Your task to perform on an android device: Search for "energizer triple a" on ebay, select the first entry, add it to the cart, then select checkout. Image 0: 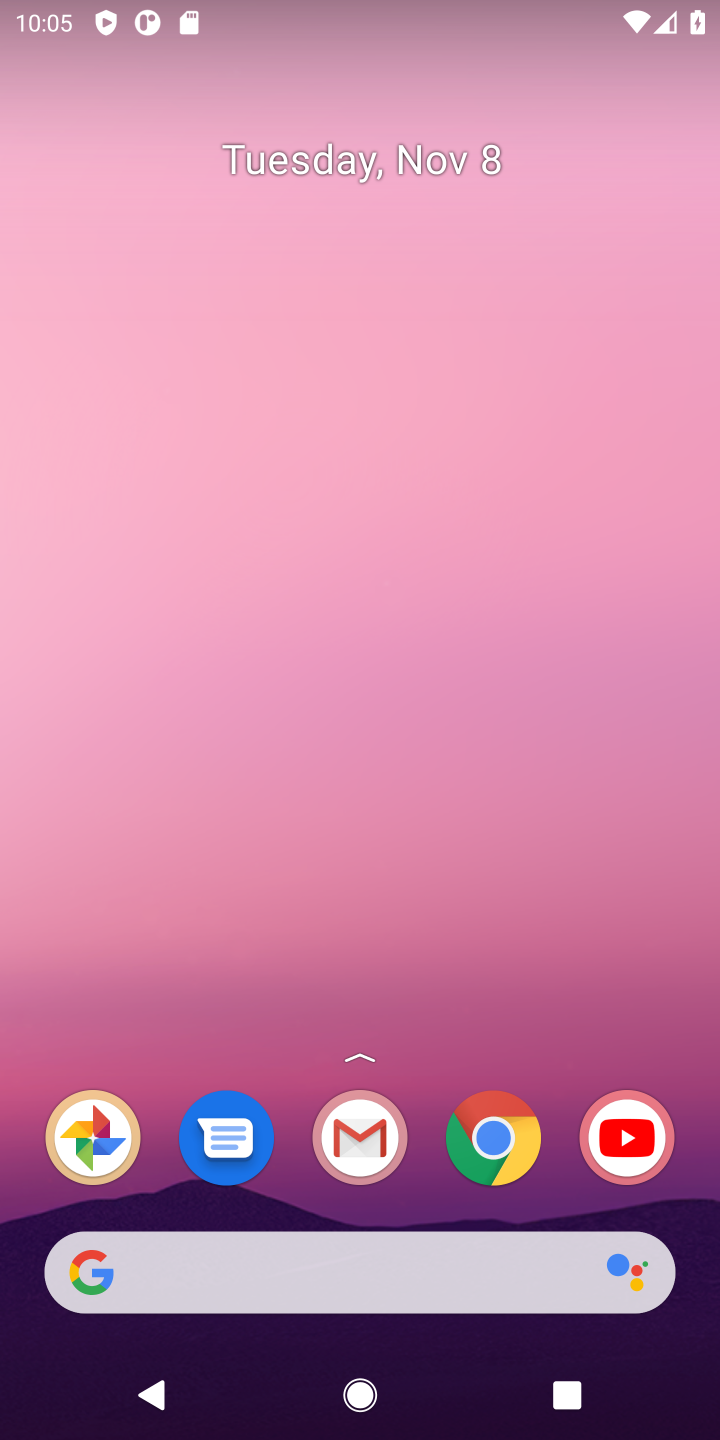
Step 0: click (502, 1134)
Your task to perform on an android device: Search for "energizer triple a" on ebay, select the first entry, add it to the cart, then select checkout. Image 1: 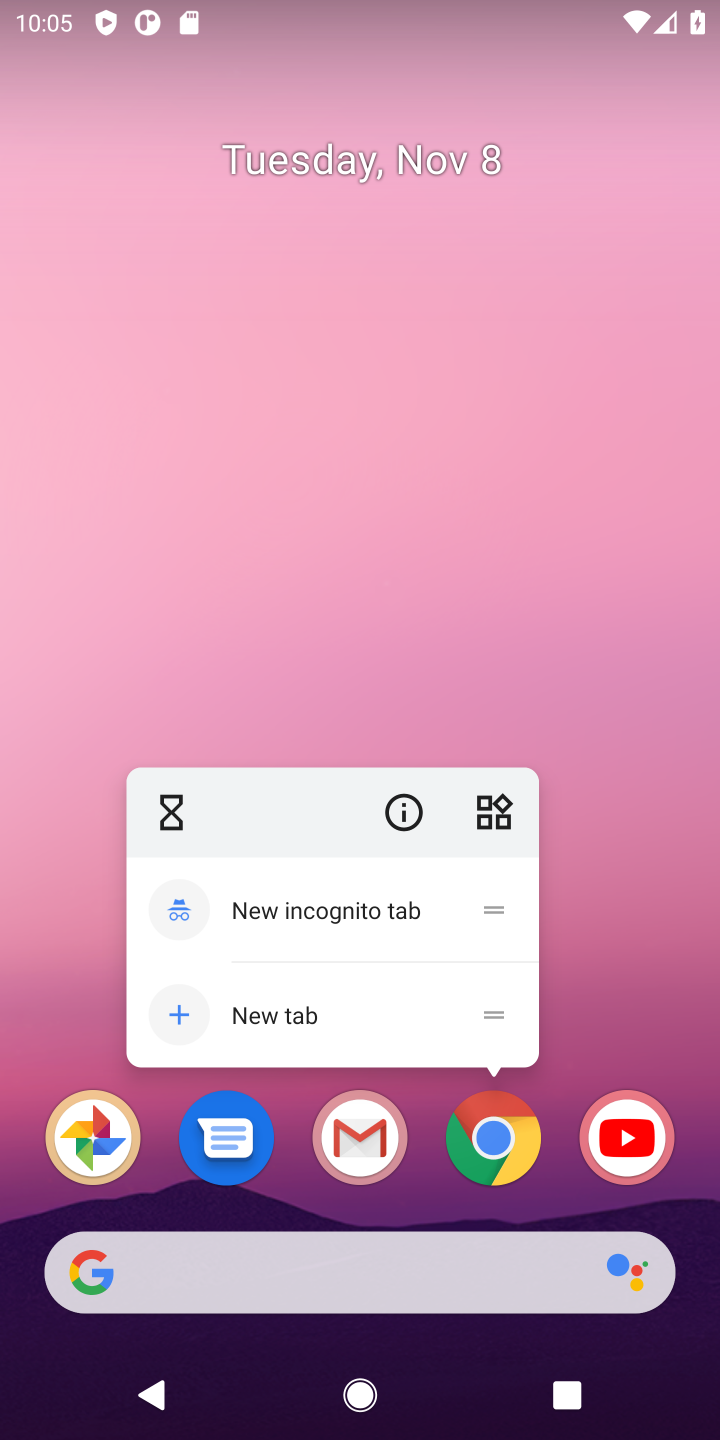
Step 1: click (501, 1119)
Your task to perform on an android device: Search for "energizer triple a" on ebay, select the first entry, add it to the cart, then select checkout. Image 2: 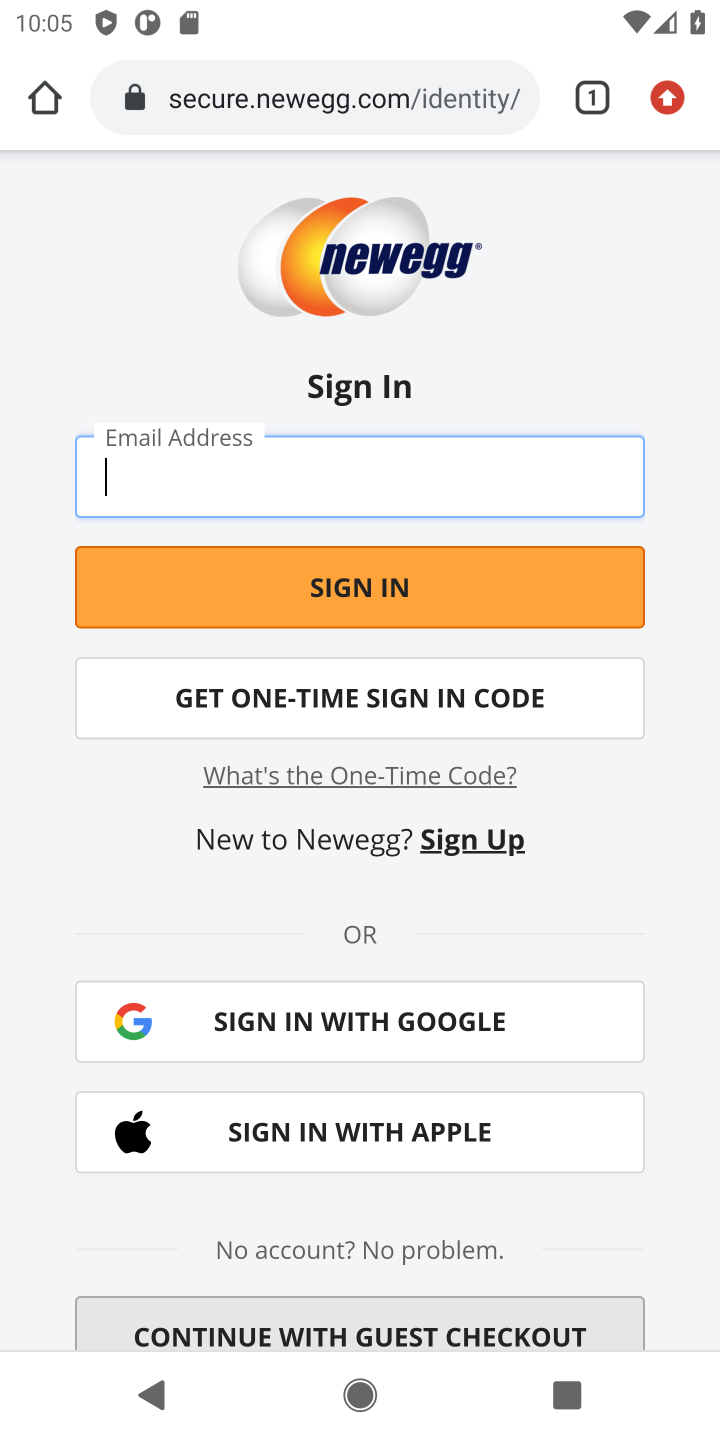
Step 2: click (421, 87)
Your task to perform on an android device: Search for "energizer triple a" on ebay, select the first entry, add it to the cart, then select checkout. Image 3: 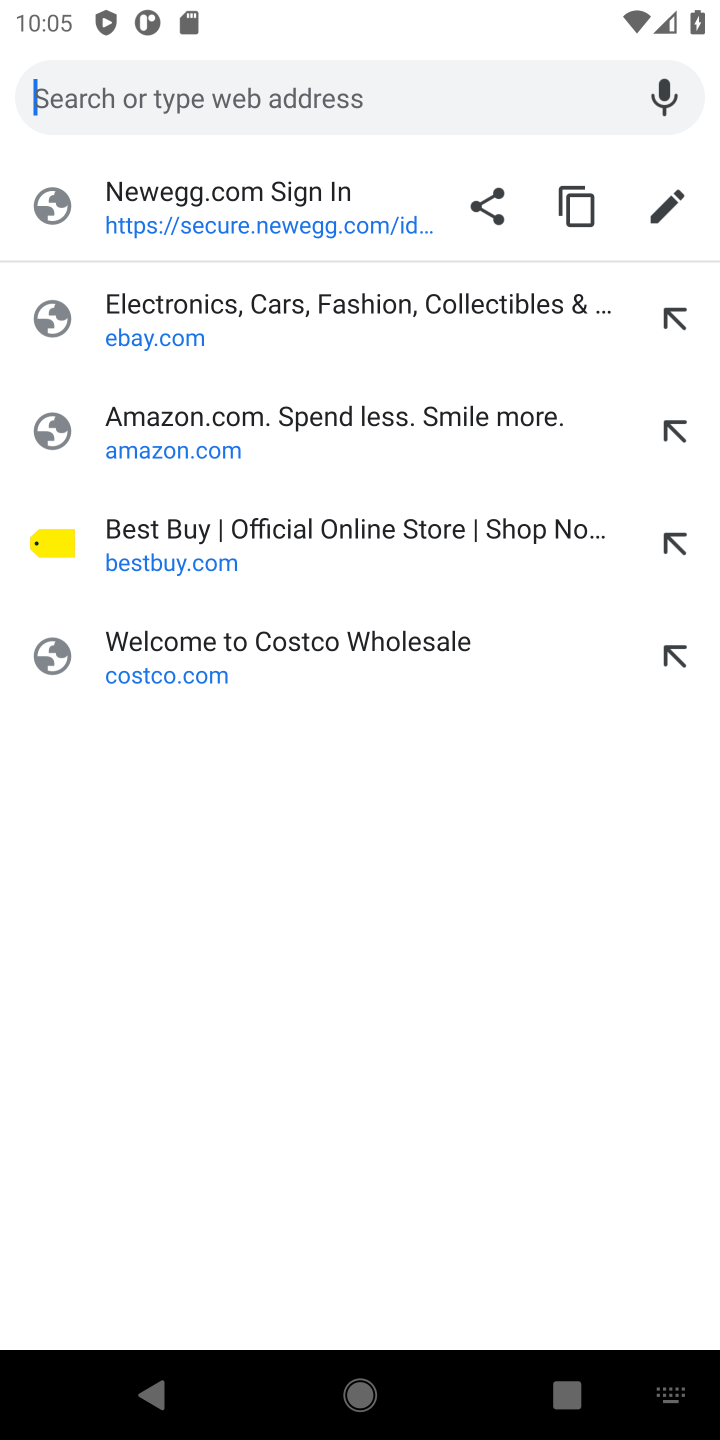
Step 3: click (165, 330)
Your task to perform on an android device: Search for "energizer triple a" on ebay, select the first entry, add it to the cart, then select checkout. Image 4: 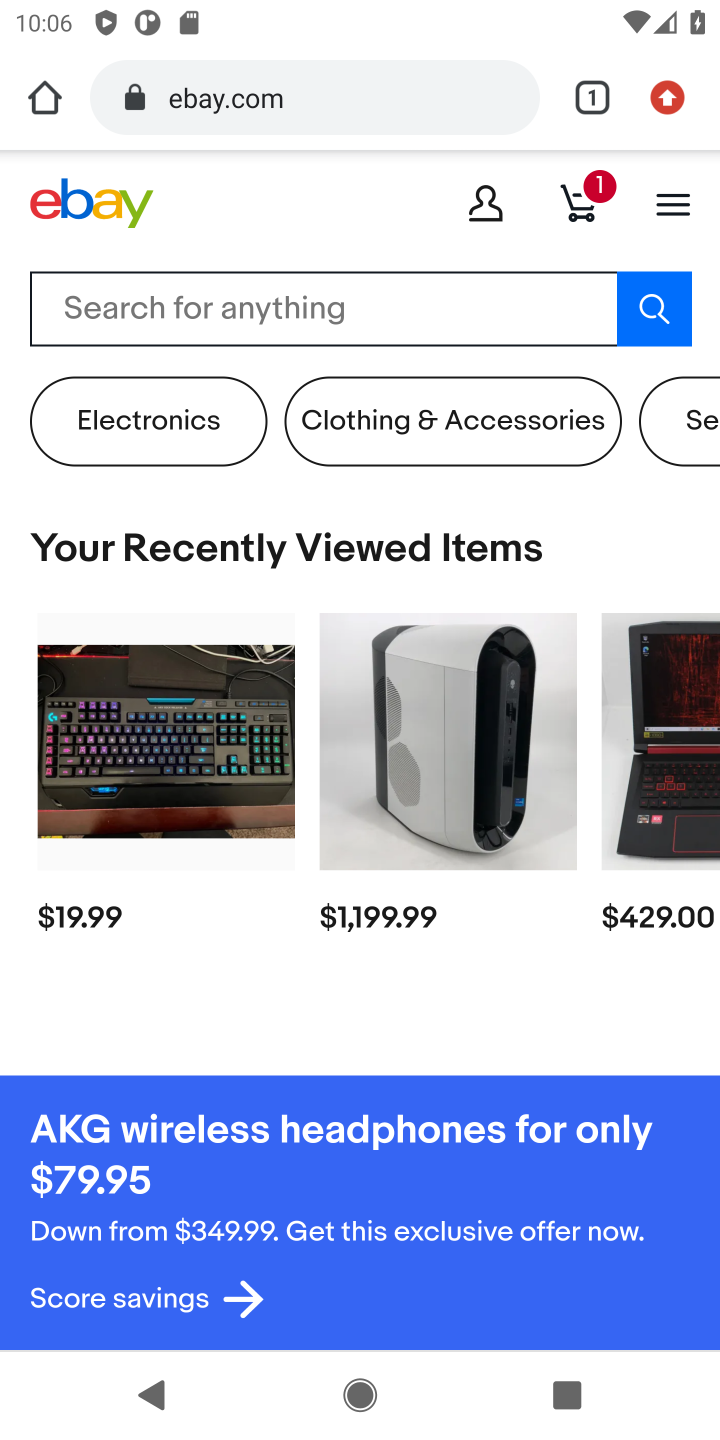
Step 4: click (165, 310)
Your task to perform on an android device: Search for "energizer triple a" on ebay, select the first entry, add it to the cart, then select checkout. Image 5: 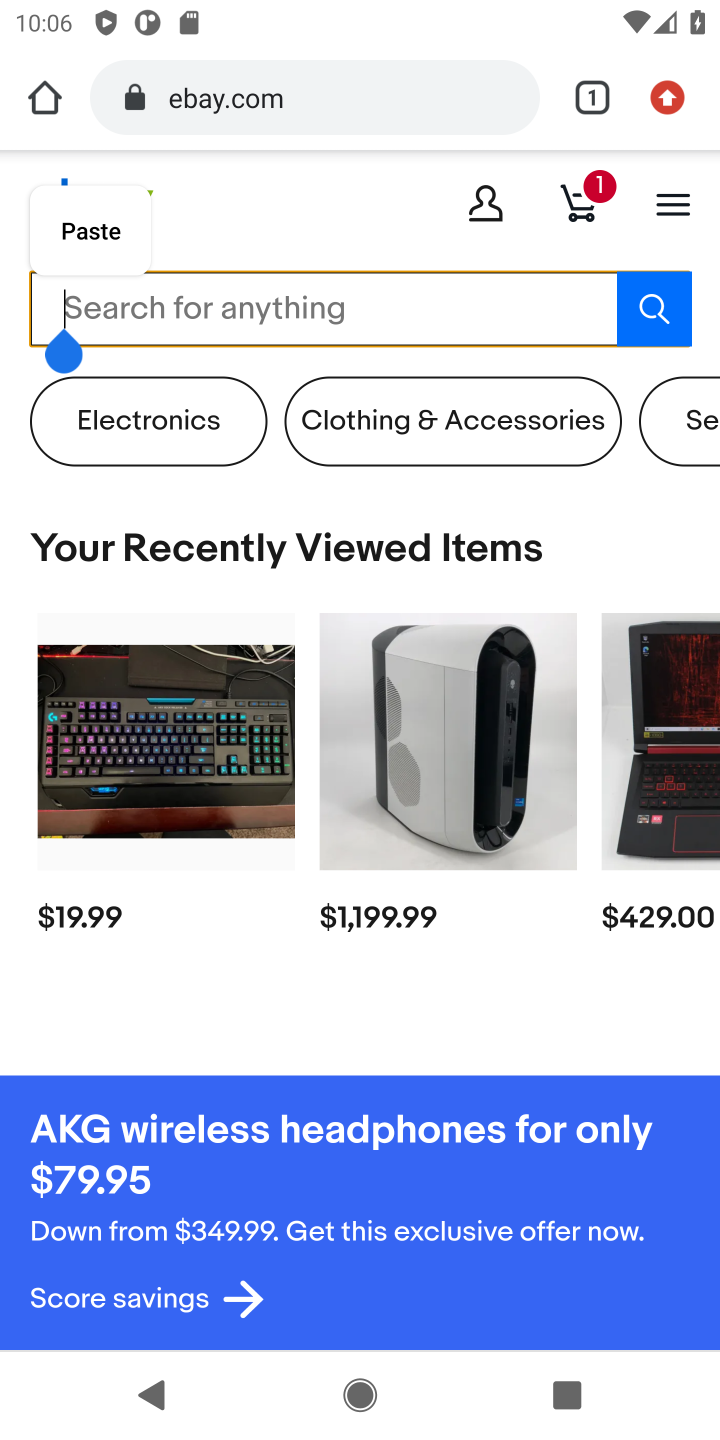
Step 5: type "energizer triple a"
Your task to perform on an android device: Search for "energizer triple a" on ebay, select the first entry, add it to the cart, then select checkout. Image 6: 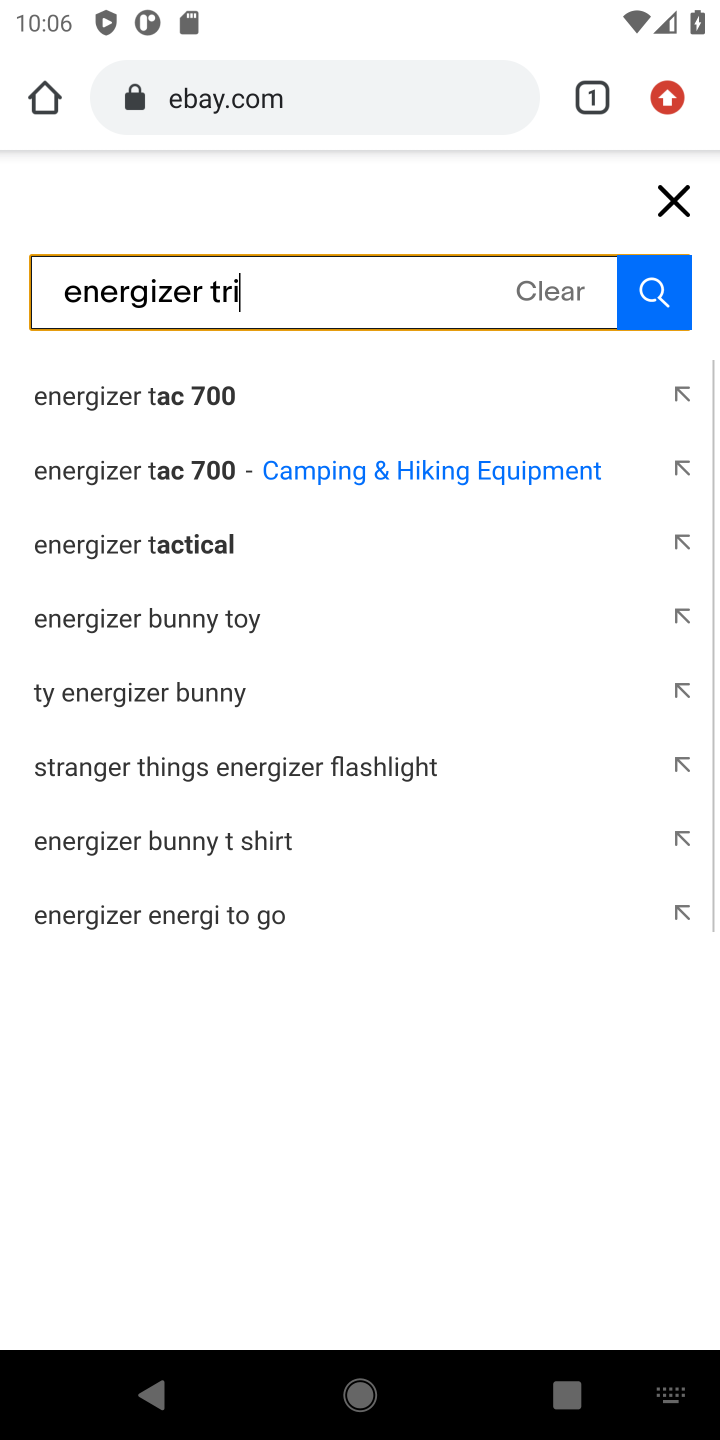
Step 6: press enter
Your task to perform on an android device: Search for "energizer triple a" on ebay, select the first entry, add it to the cart, then select checkout. Image 7: 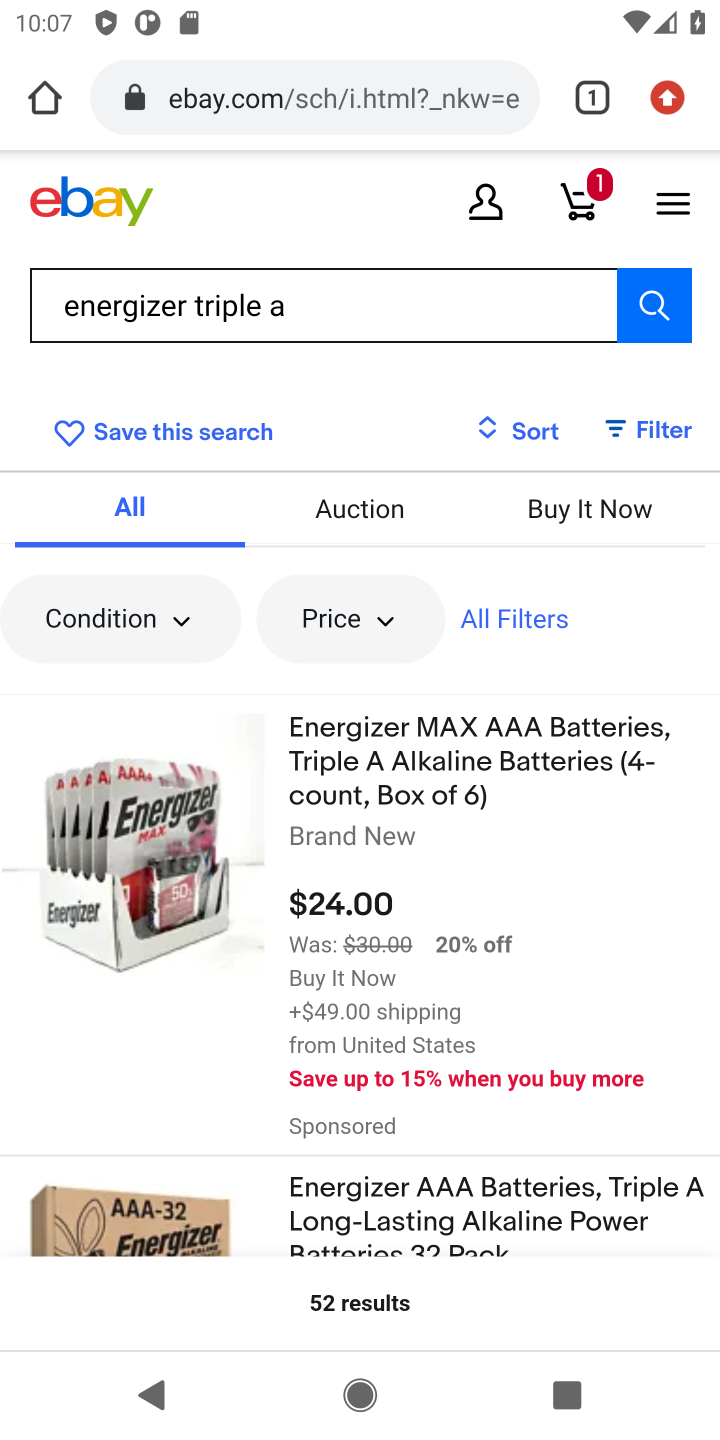
Step 7: click (452, 763)
Your task to perform on an android device: Search for "energizer triple a" on ebay, select the first entry, add it to the cart, then select checkout. Image 8: 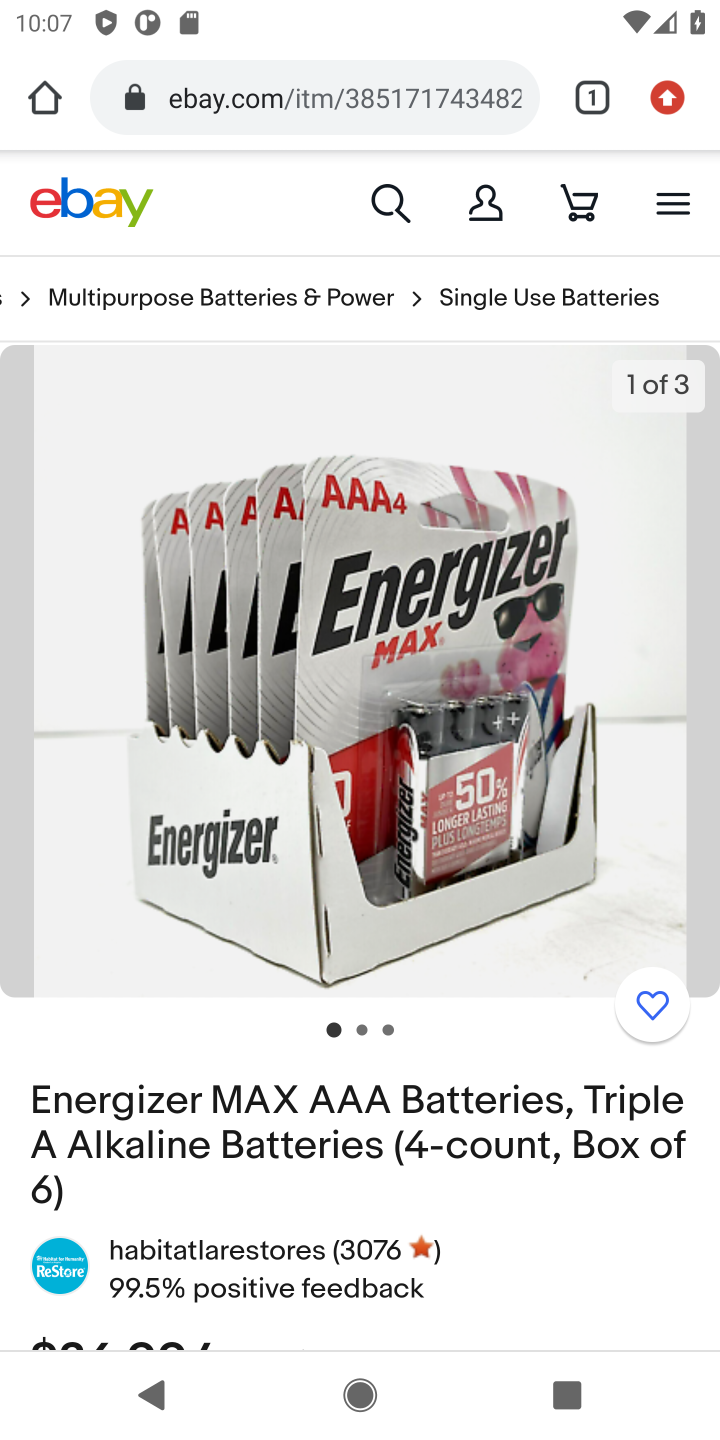
Step 8: drag from (378, 1270) to (622, 60)
Your task to perform on an android device: Search for "energizer triple a" on ebay, select the first entry, add it to the cart, then select checkout. Image 9: 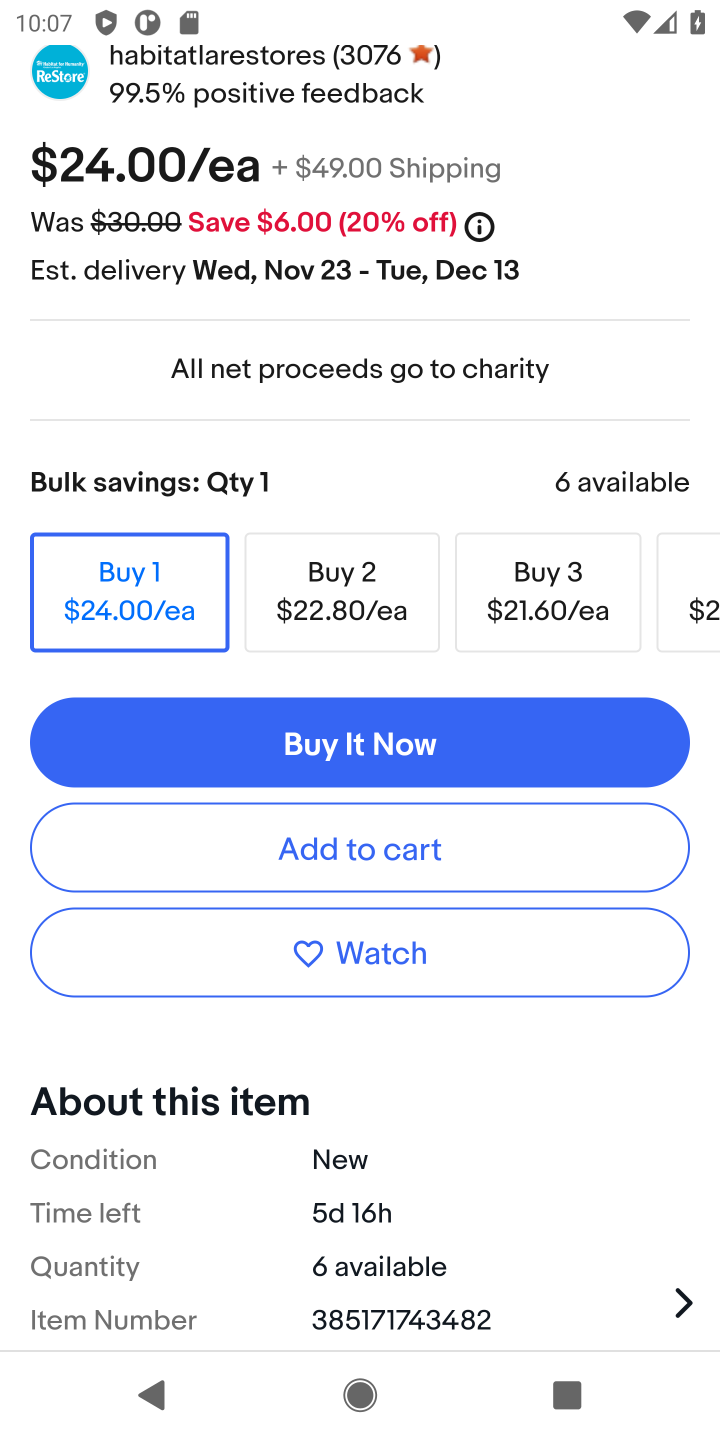
Step 9: click (411, 850)
Your task to perform on an android device: Search for "energizer triple a" on ebay, select the first entry, add it to the cart, then select checkout. Image 10: 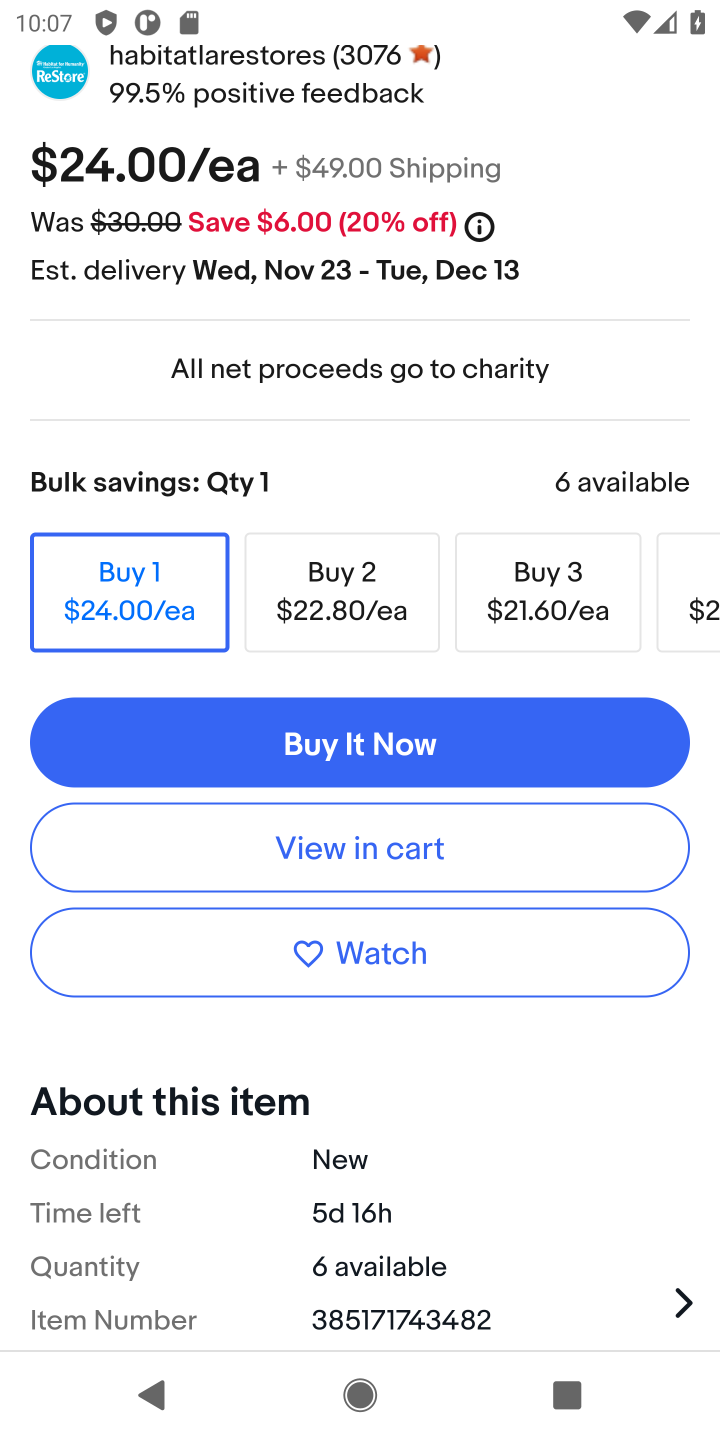
Step 10: click (390, 842)
Your task to perform on an android device: Search for "energizer triple a" on ebay, select the first entry, add it to the cart, then select checkout. Image 11: 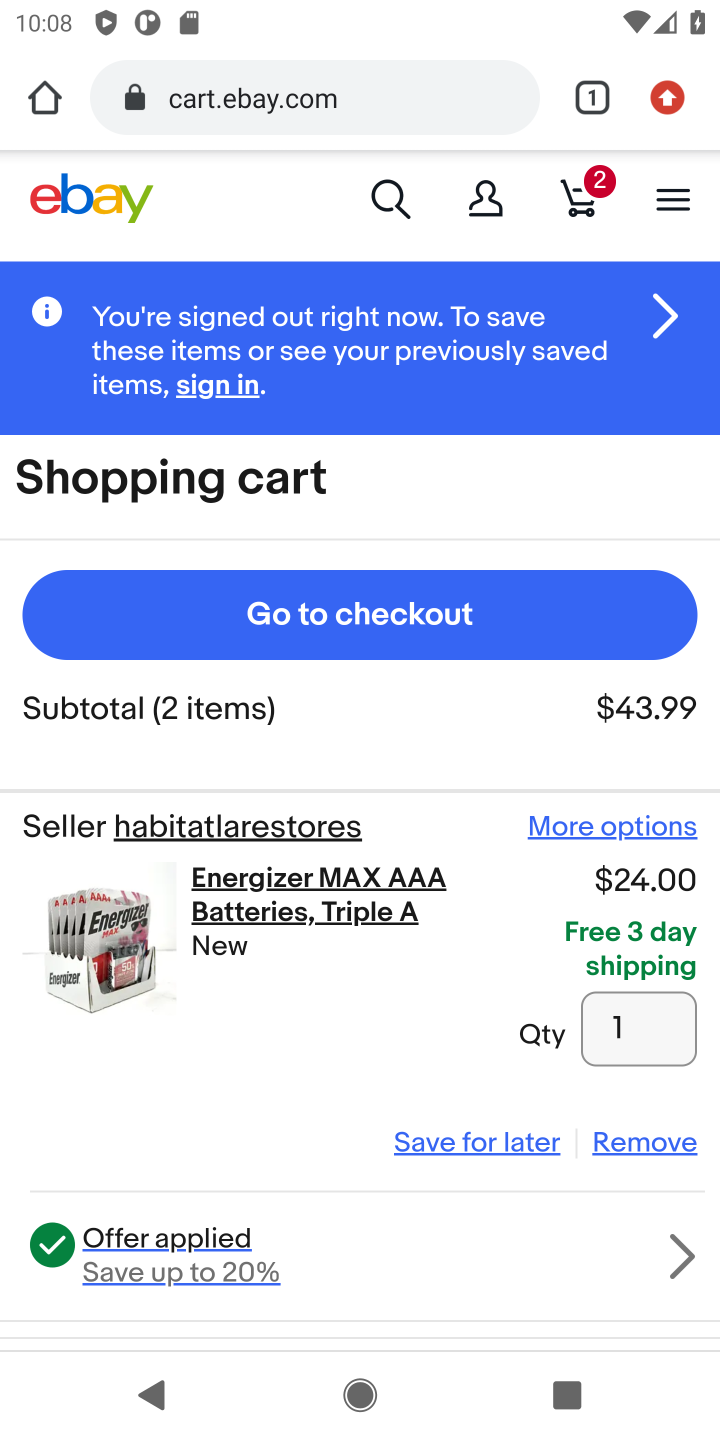
Step 11: drag from (285, 1147) to (661, 321)
Your task to perform on an android device: Search for "energizer triple a" on ebay, select the first entry, add it to the cart, then select checkout. Image 12: 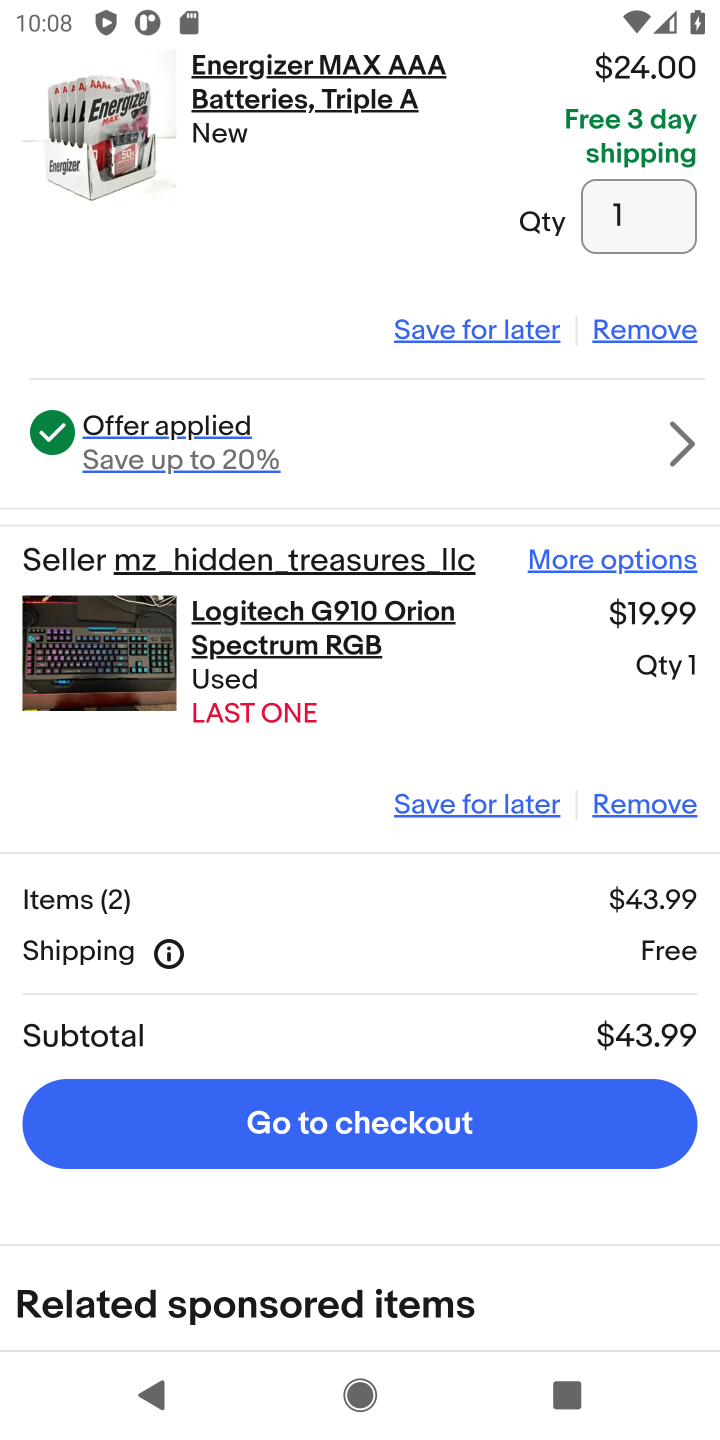
Step 12: click (663, 809)
Your task to perform on an android device: Search for "energizer triple a" on ebay, select the first entry, add it to the cart, then select checkout. Image 13: 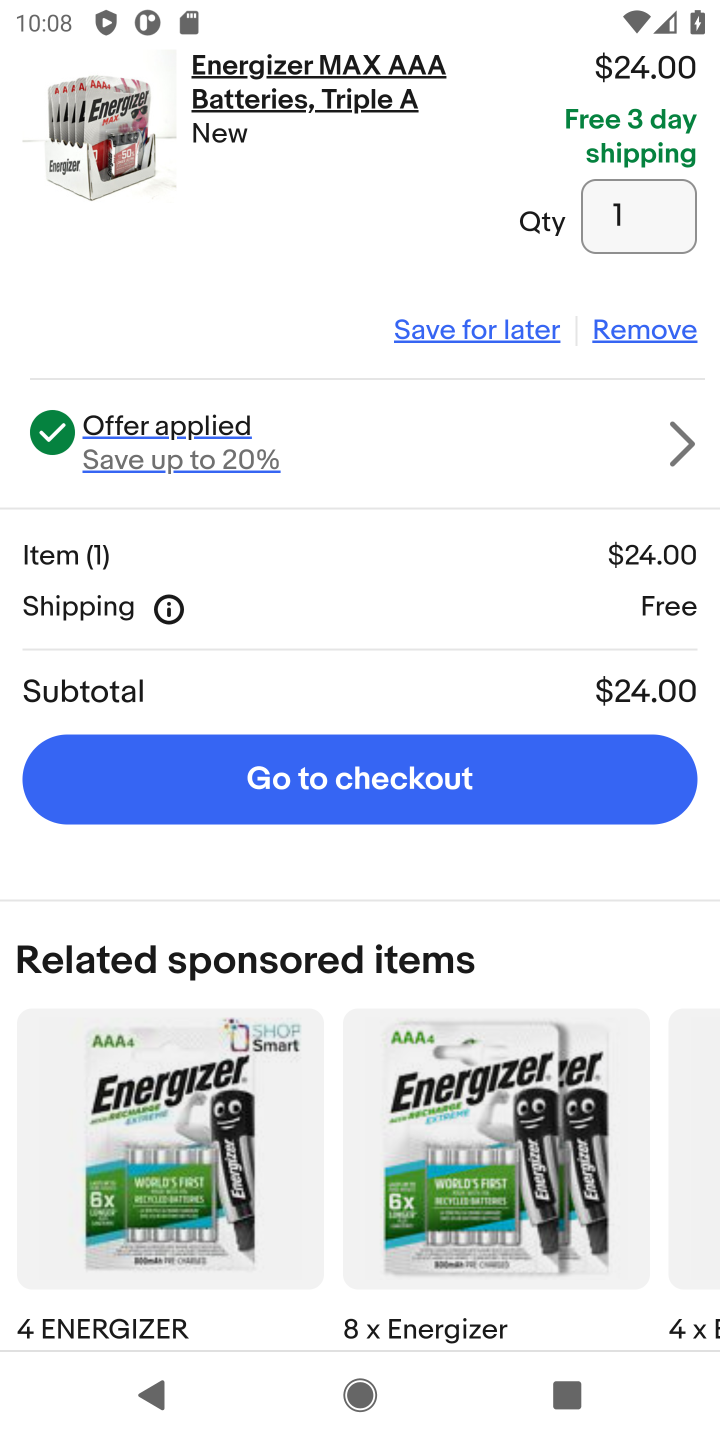
Step 13: click (333, 764)
Your task to perform on an android device: Search for "energizer triple a" on ebay, select the first entry, add it to the cart, then select checkout. Image 14: 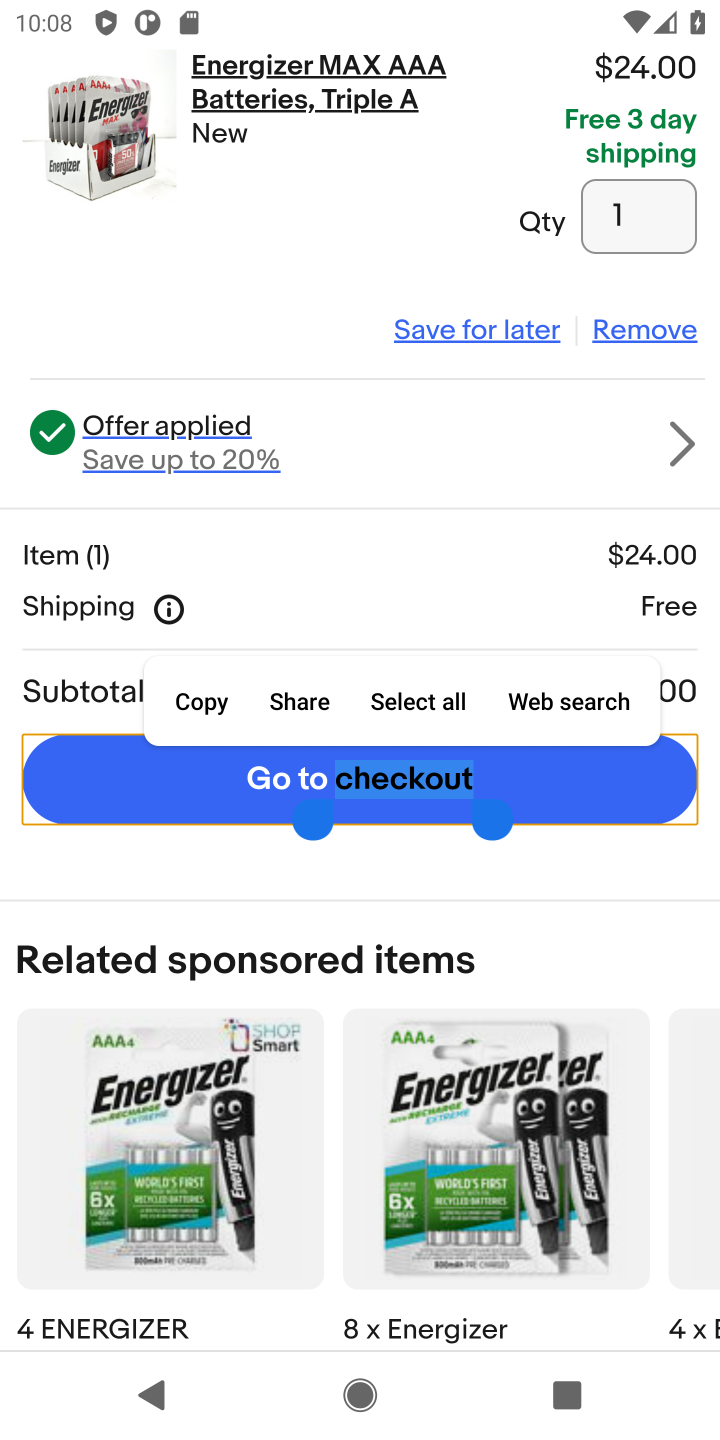
Step 14: click (323, 778)
Your task to perform on an android device: Search for "energizer triple a" on ebay, select the first entry, add it to the cart, then select checkout. Image 15: 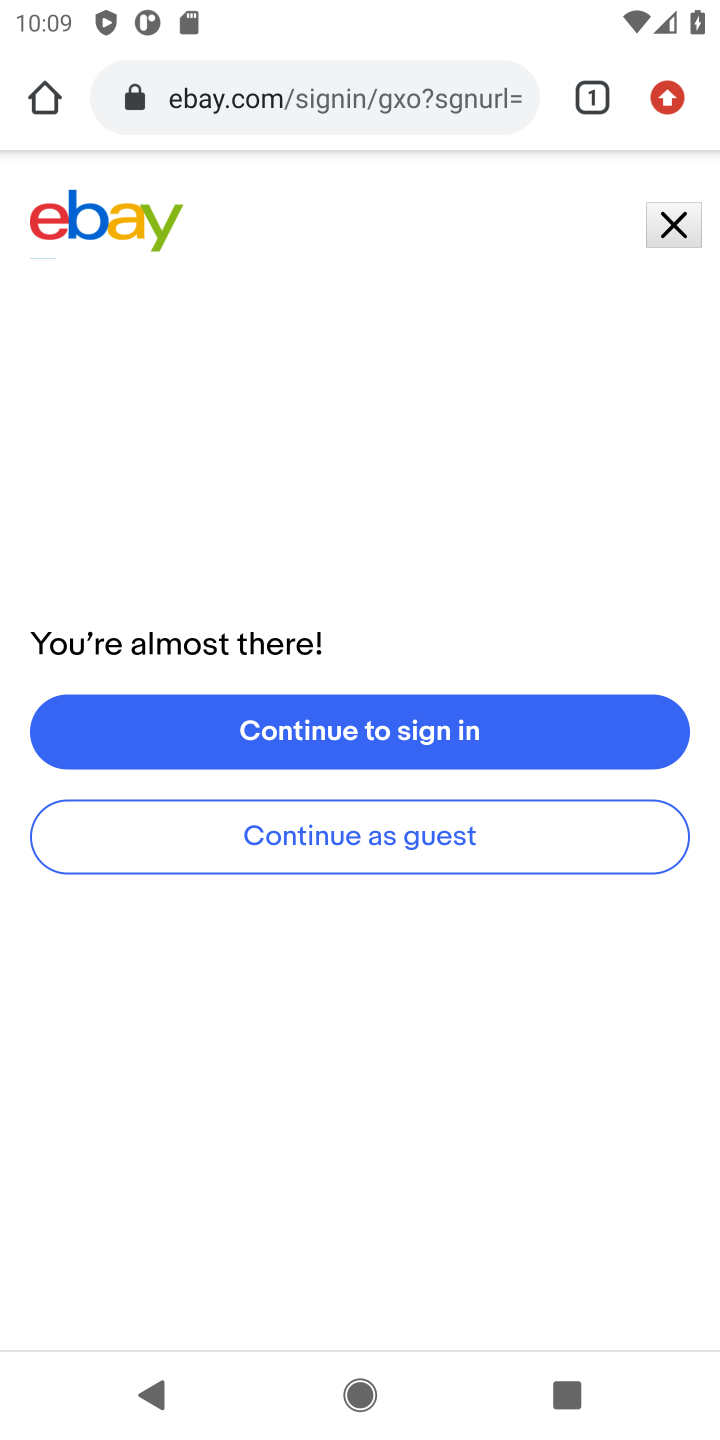
Step 15: task complete